Your task to perform on an android device: find which apps use the phone's location Image 0: 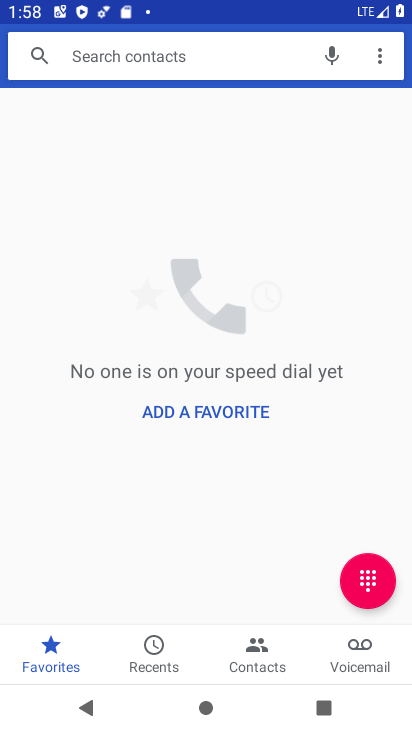
Step 0: press home button
Your task to perform on an android device: find which apps use the phone's location Image 1: 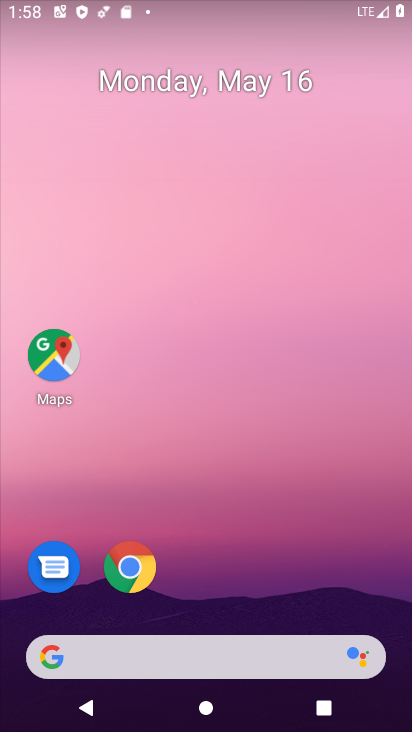
Step 1: drag from (243, 602) to (154, 139)
Your task to perform on an android device: find which apps use the phone's location Image 2: 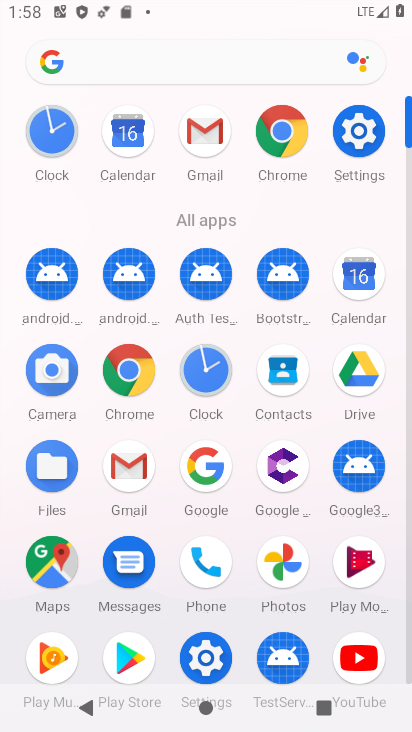
Step 2: click (218, 668)
Your task to perform on an android device: find which apps use the phone's location Image 3: 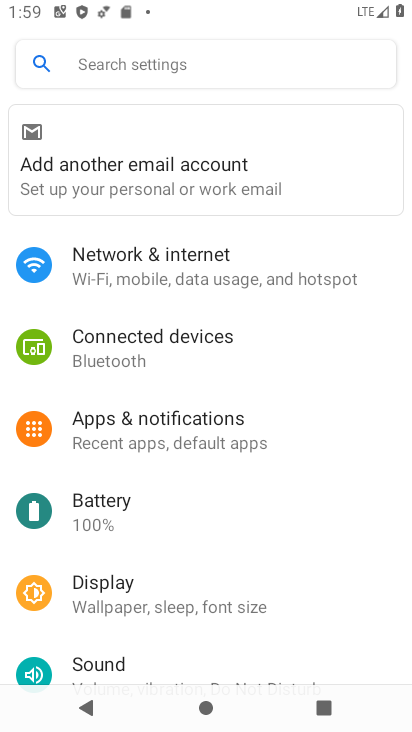
Step 3: drag from (296, 636) to (304, 154)
Your task to perform on an android device: find which apps use the phone's location Image 4: 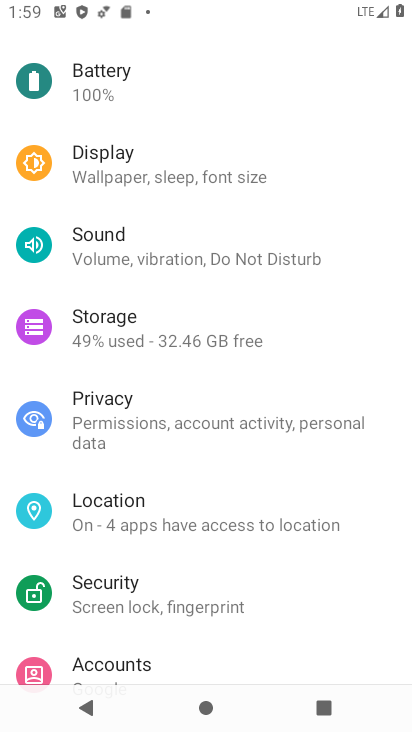
Step 4: drag from (309, 607) to (305, 412)
Your task to perform on an android device: find which apps use the phone's location Image 5: 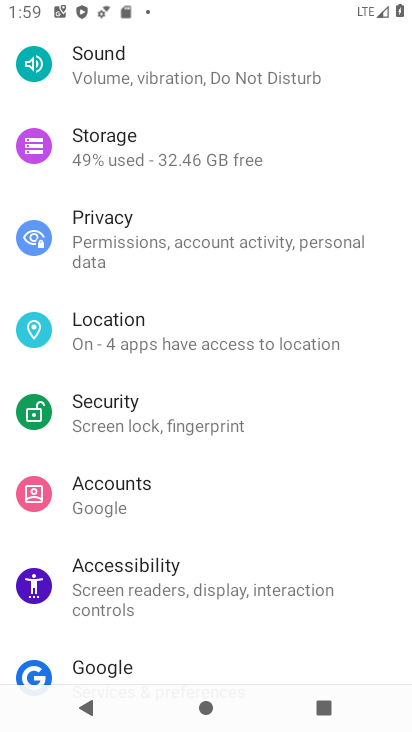
Step 5: click (271, 347)
Your task to perform on an android device: find which apps use the phone's location Image 6: 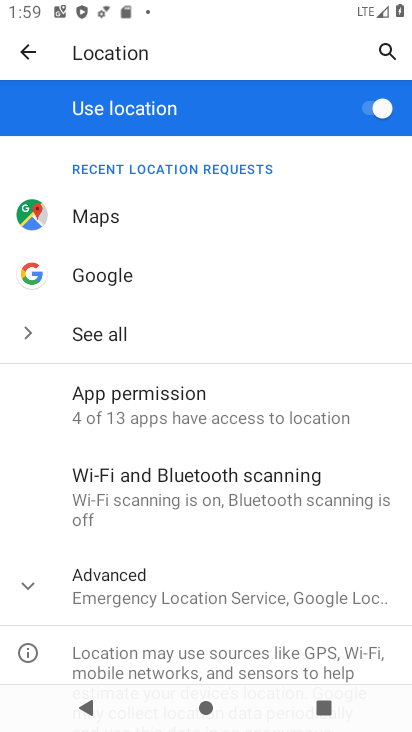
Step 6: click (307, 413)
Your task to perform on an android device: find which apps use the phone's location Image 7: 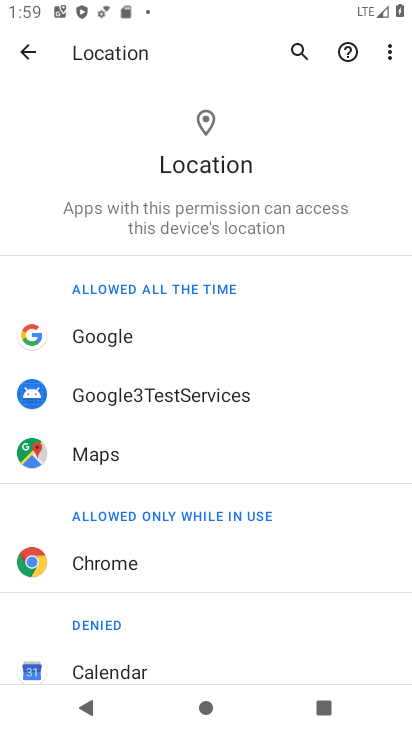
Step 7: task complete